Your task to perform on an android device: show emergency info Image 0: 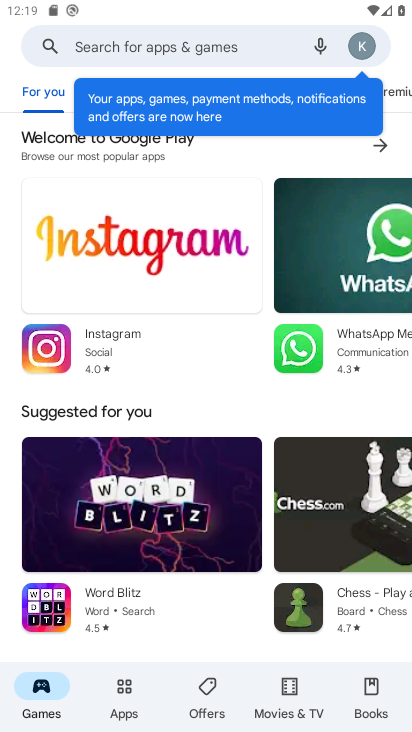
Step 0: press home button
Your task to perform on an android device: show emergency info Image 1: 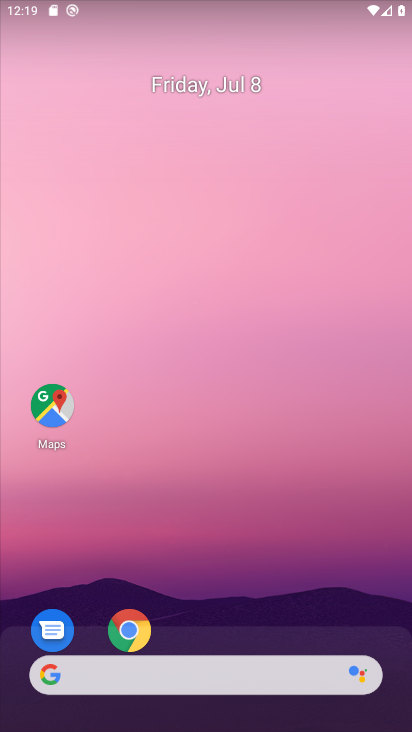
Step 1: drag from (284, 548) to (191, 107)
Your task to perform on an android device: show emergency info Image 2: 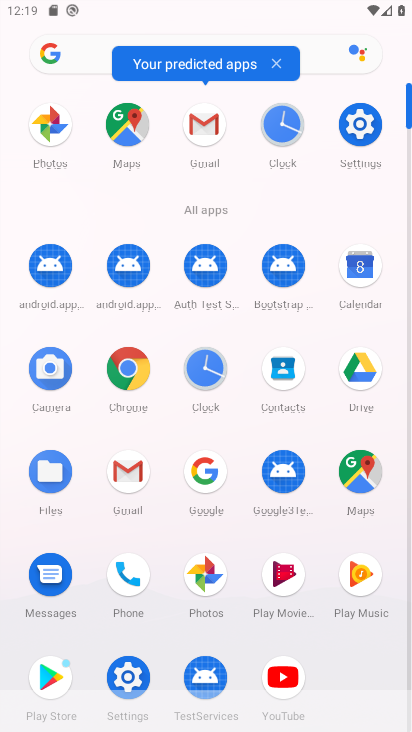
Step 2: click (119, 681)
Your task to perform on an android device: show emergency info Image 3: 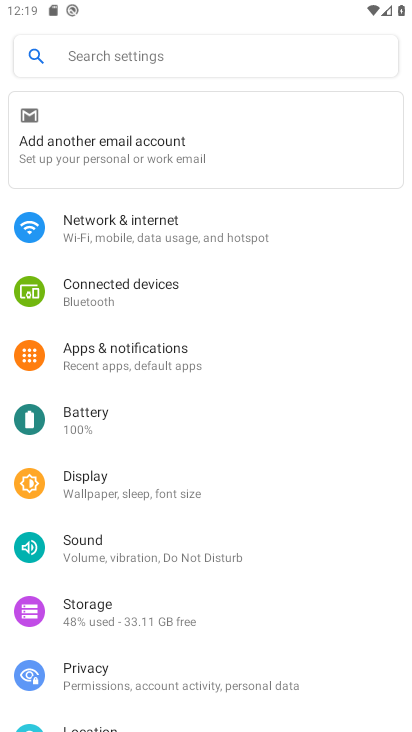
Step 3: drag from (159, 603) to (123, 13)
Your task to perform on an android device: show emergency info Image 4: 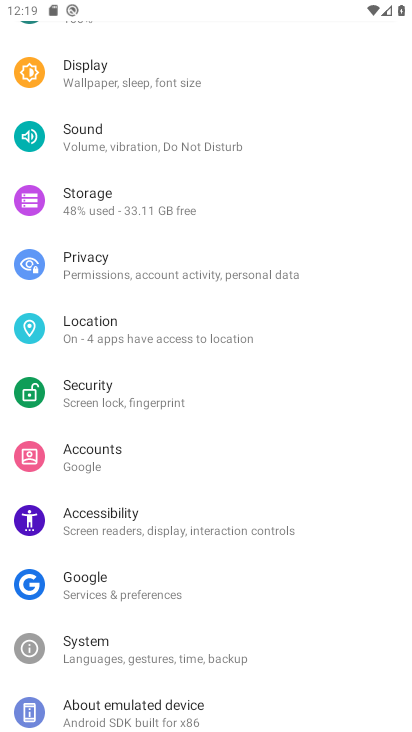
Step 4: click (100, 716)
Your task to perform on an android device: show emergency info Image 5: 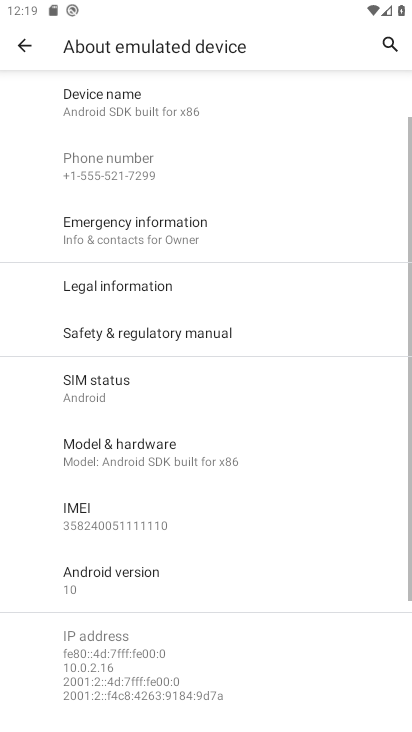
Step 5: click (159, 229)
Your task to perform on an android device: show emergency info Image 6: 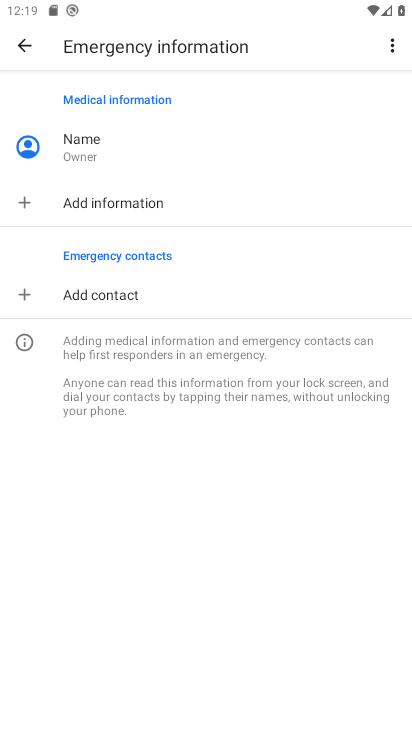
Step 6: task complete